Your task to perform on an android device: open wifi settings Image 0: 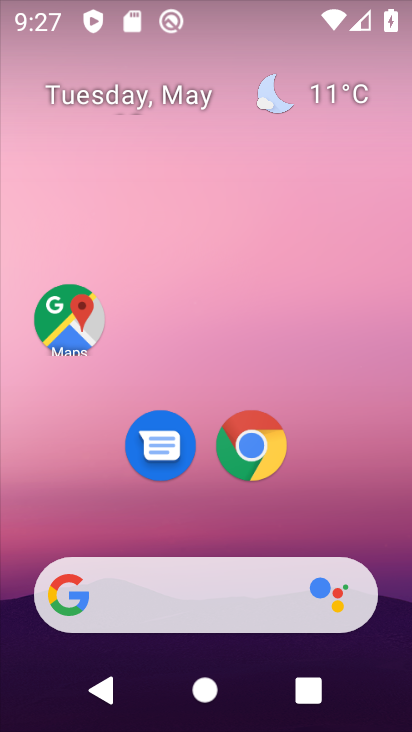
Step 0: drag from (163, 583) to (85, 5)
Your task to perform on an android device: open wifi settings Image 1: 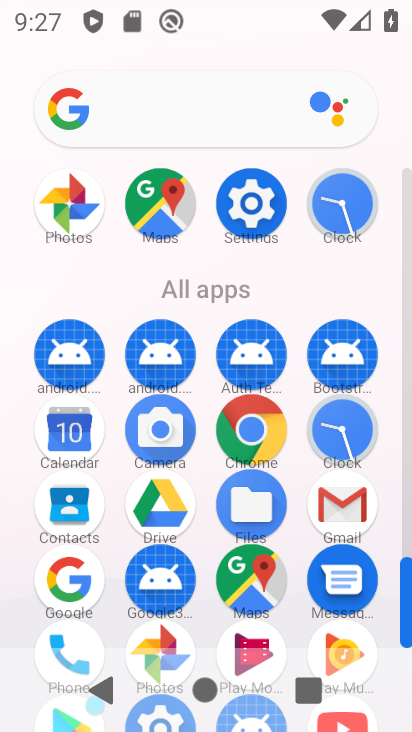
Step 1: click (257, 214)
Your task to perform on an android device: open wifi settings Image 2: 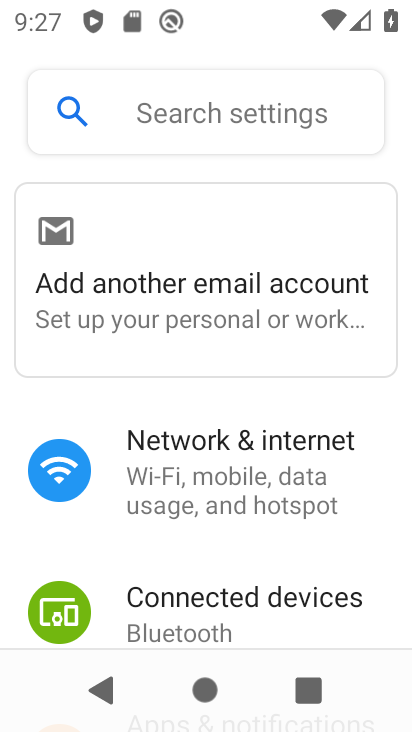
Step 2: click (235, 471)
Your task to perform on an android device: open wifi settings Image 3: 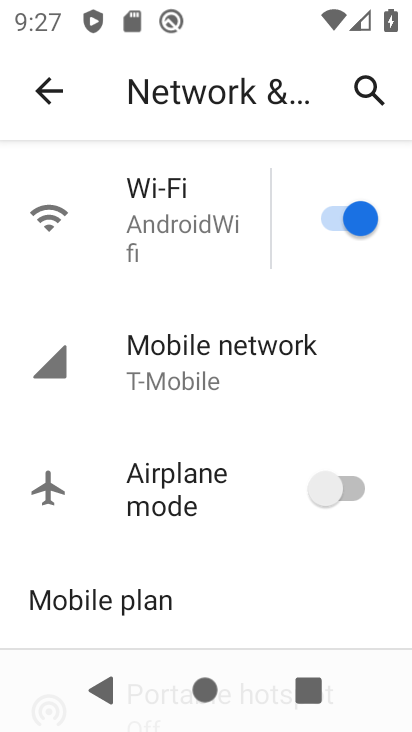
Step 3: click (155, 239)
Your task to perform on an android device: open wifi settings Image 4: 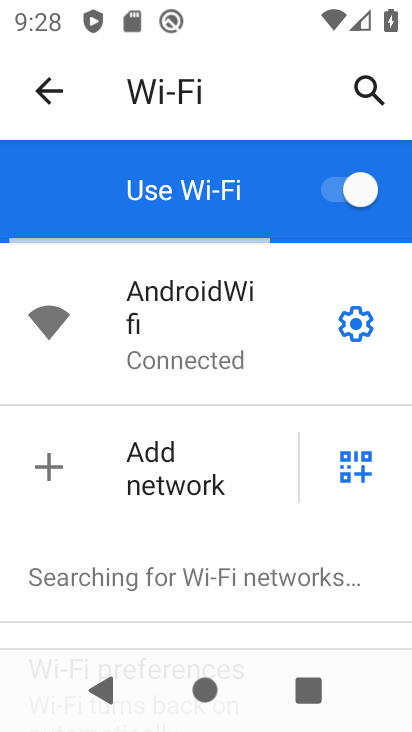
Step 4: task complete